Your task to perform on an android device: Open calendar and show me the third week of next month Image 0: 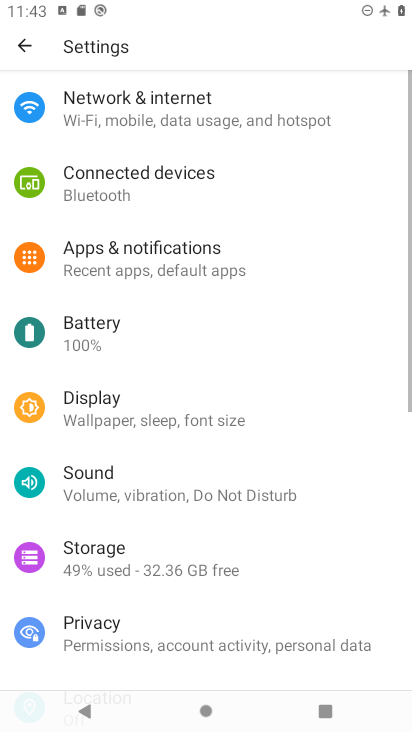
Step 0: press home button
Your task to perform on an android device: Open calendar and show me the third week of next month Image 1: 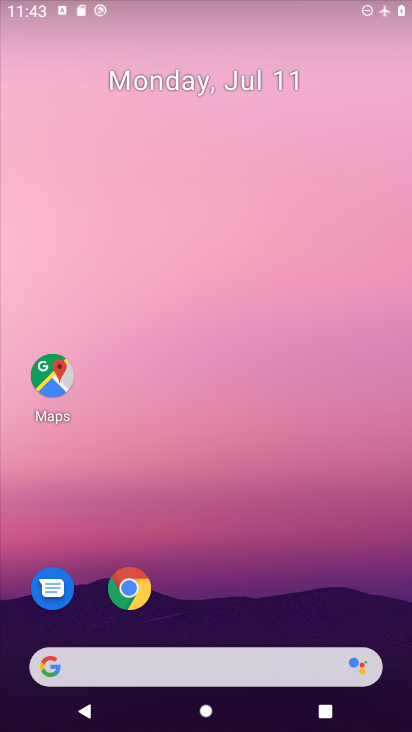
Step 1: drag from (343, 452) to (220, 7)
Your task to perform on an android device: Open calendar and show me the third week of next month Image 2: 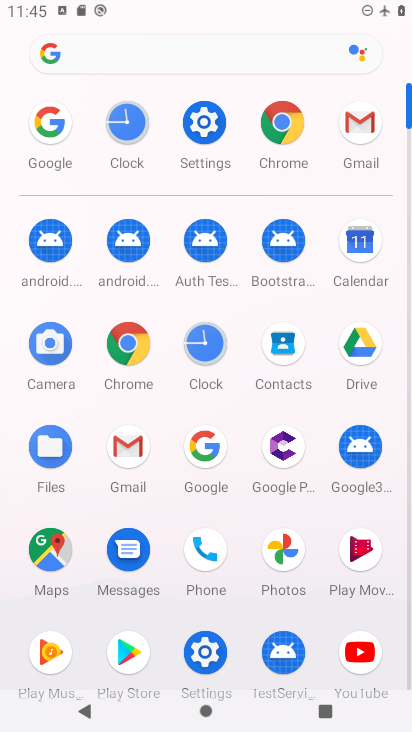
Step 2: click (358, 258)
Your task to perform on an android device: Open calendar and show me the third week of next month Image 3: 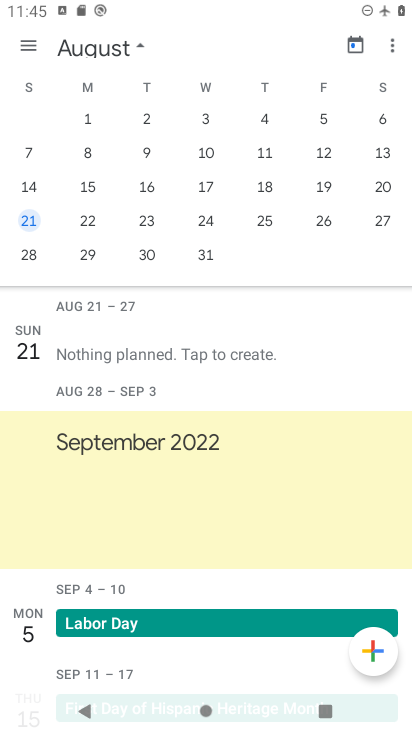
Step 3: drag from (377, 132) to (4, 176)
Your task to perform on an android device: Open calendar and show me the third week of next month Image 4: 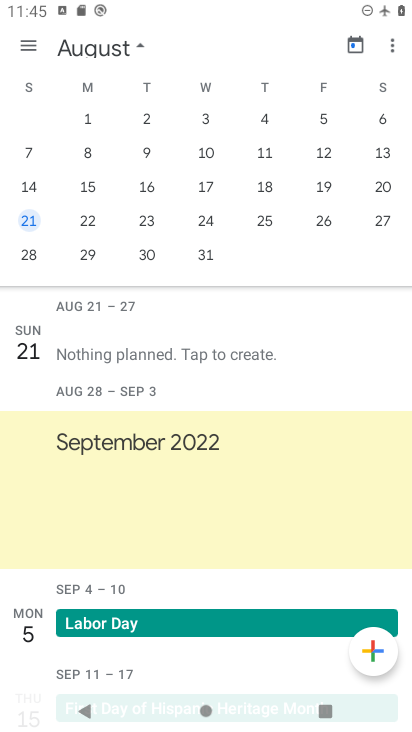
Step 4: drag from (355, 140) to (13, 197)
Your task to perform on an android device: Open calendar and show me the third week of next month Image 5: 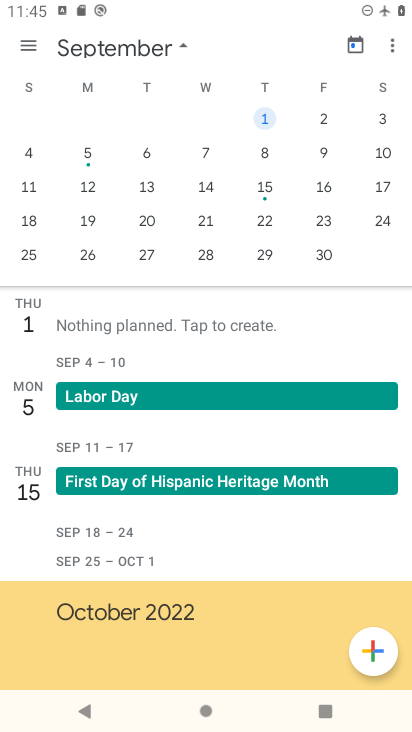
Step 5: click (27, 221)
Your task to perform on an android device: Open calendar and show me the third week of next month Image 6: 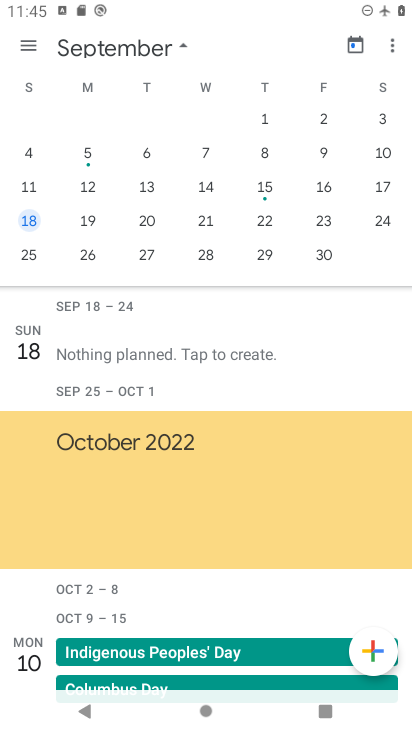
Step 6: task complete